Your task to perform on an android device: change your default location settings in chrome Image 0: 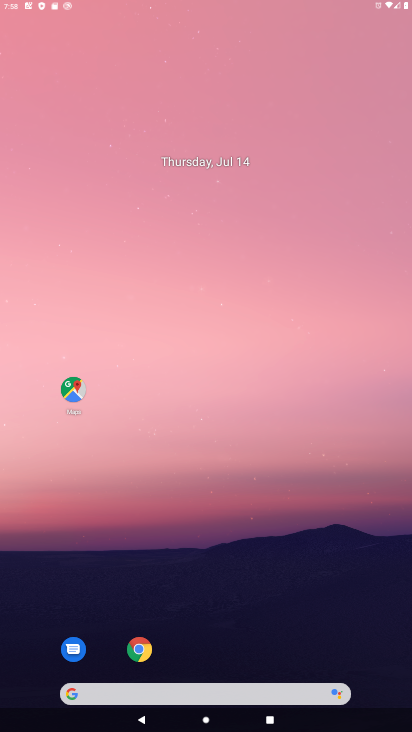
Step 0: press home button
Your task to perform on an android device: change your default location settings in chrome Image 1: 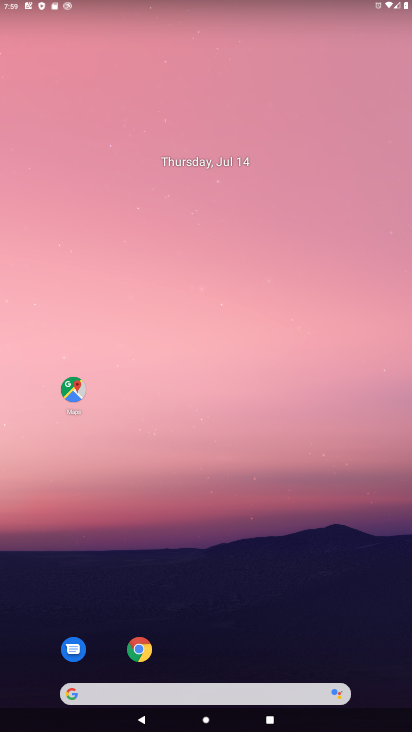
Step 1: click (139, 647)
Your task to perform on an android device: change your default location settings in chrome Image 2: 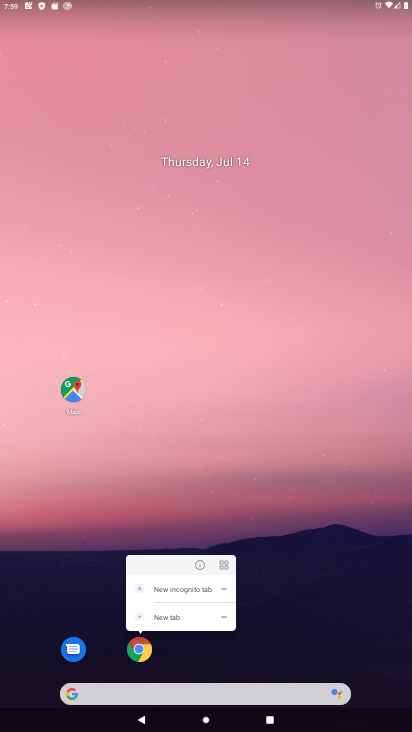
Step 2: click (135, 643)
Your task to perform on an android device: change your default location settings in chrome Image 3: 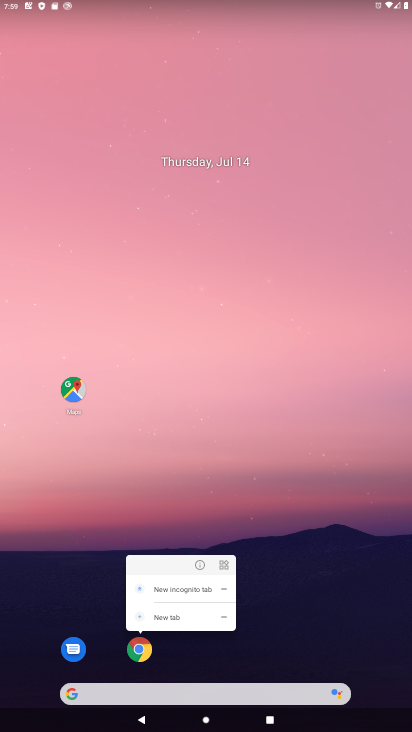
Step 3: click (136, 641)
Your task to perform on an android device: change your default location settings in chrome Image 4: 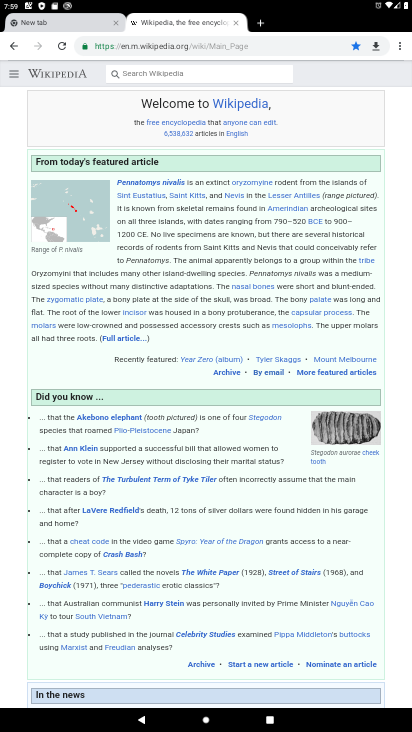
Step 4: click (398, 41)
Your task to perform on an android device: change your default location settings in chrome Image 5: 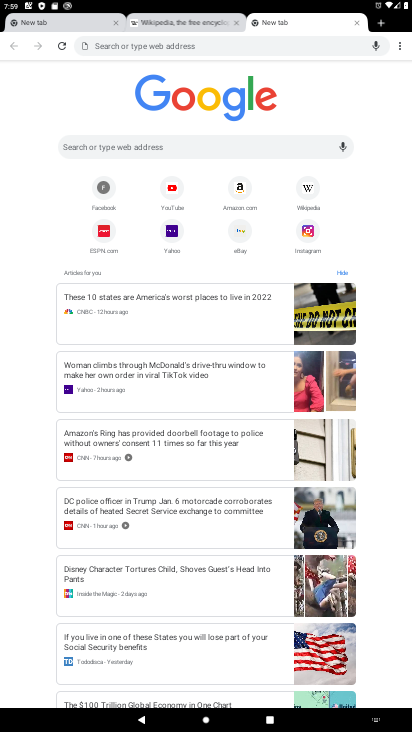
Step 5: click (401, 40)
Your task to perform on an android device: change your default location settings in chrome Image 6: 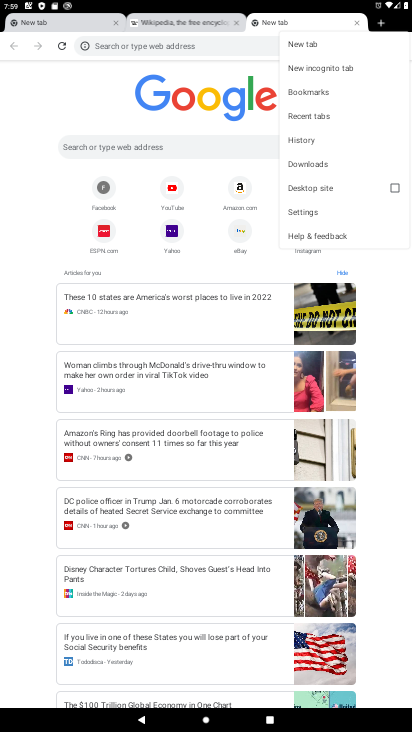
Step 6: click (317, 213)
Your task to perform on an android device: change your default location settings in chrome Image 7: 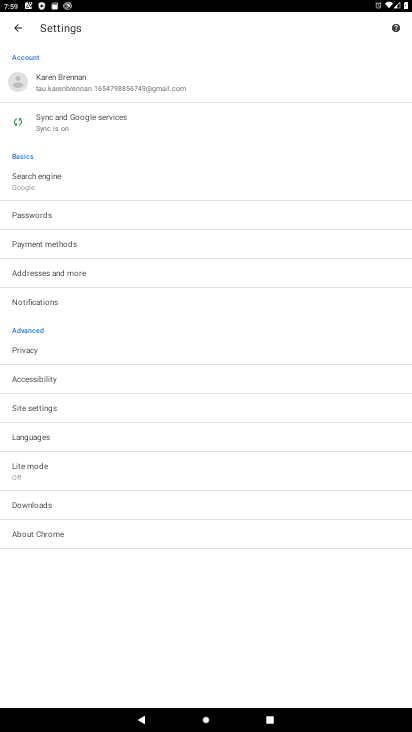
Step 7: click (66, 404)
Your task to perform on an android device: change your default location settings in chrome Image 8: 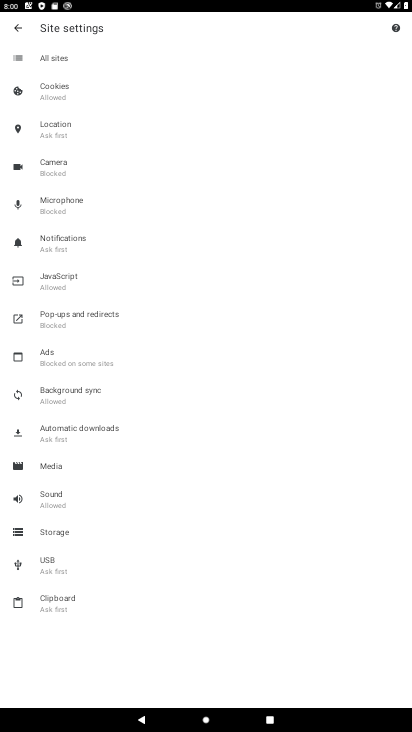
Step 8: click (76, 129)
Your task to perform on an android device: change your default location settings in chrome Image 9: 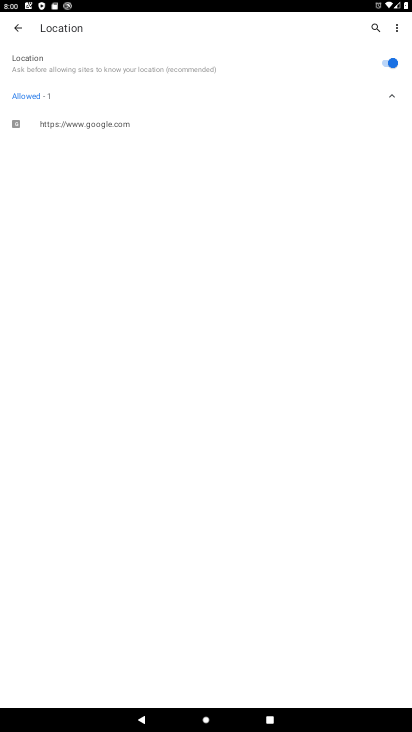
Step 9: click (384, 60)
Your task to perform on an android device: change your default location settings in chrome Image 10: 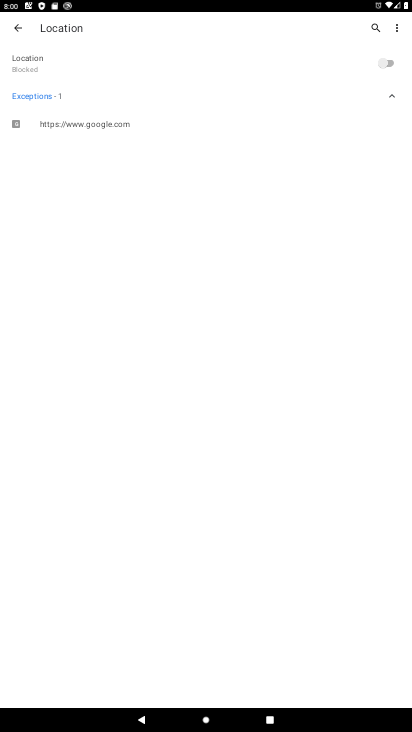
Step 10: task complete